Your task to perform on an android device: delete browsing data in the chrome app Image 0: 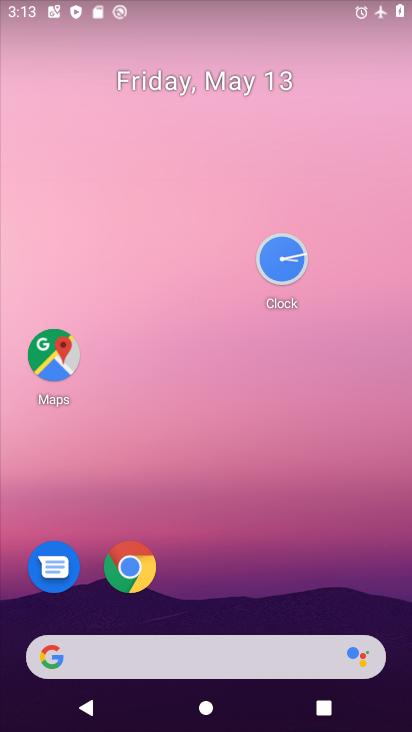
Step 0: drag from (238, 610) to (254, 207)
Your task to perform on an android device: delete browsing data in the chrome app Image 1: 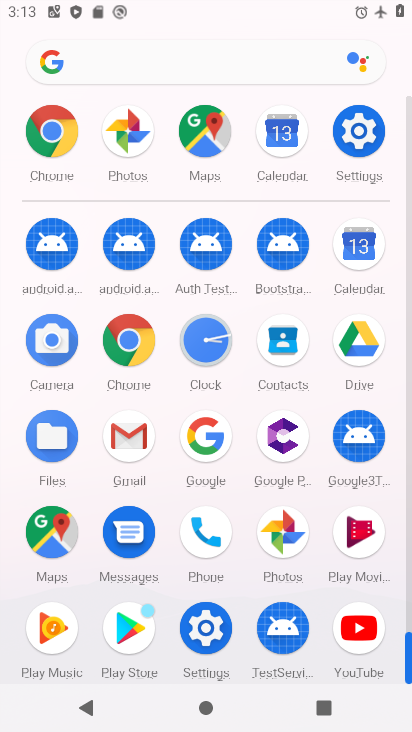
Step 1: click (61, 134)
Your task to perform on an android device: delete browsing data in the chrome app Image 2: 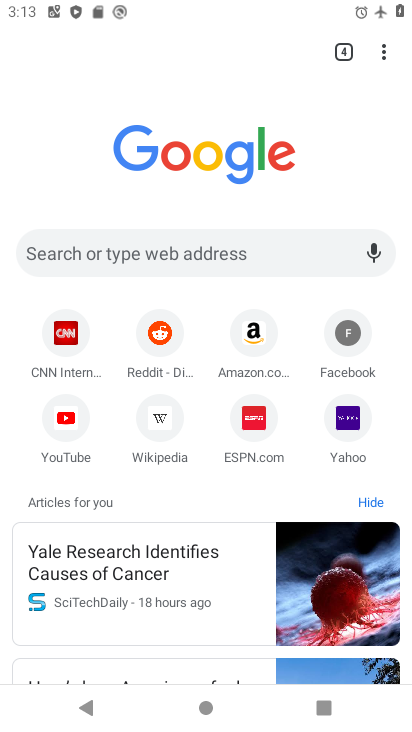
Step 2: click (378, 52)
Your task to perform on an android device: delete browsing data in the chrome app Image 3: 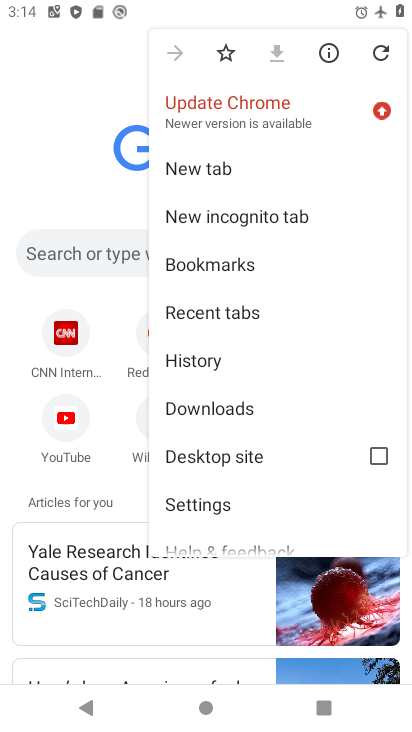
Step 3: click (220, 352)
Your task to perform on an android device: delete browsing data in the chrome app Image 4: 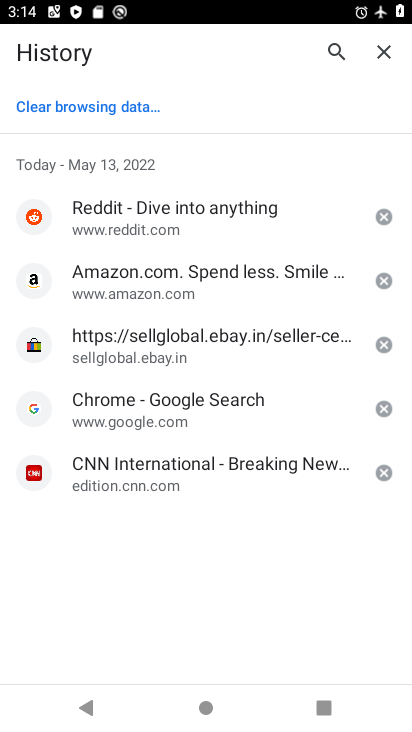
Step 4: click (109, 122)
Your task to perform on an android device: delete browsing data in the chrome app Image 5: 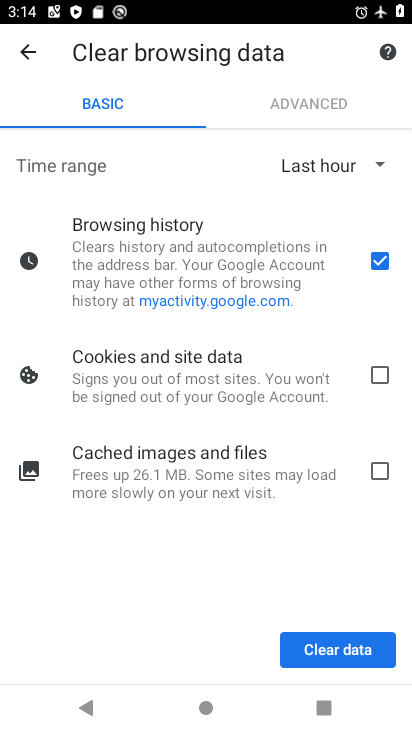
Step 5: click (340, 657)
Your task to perform on an android device: delete browsing data in the chrome app Image 6: 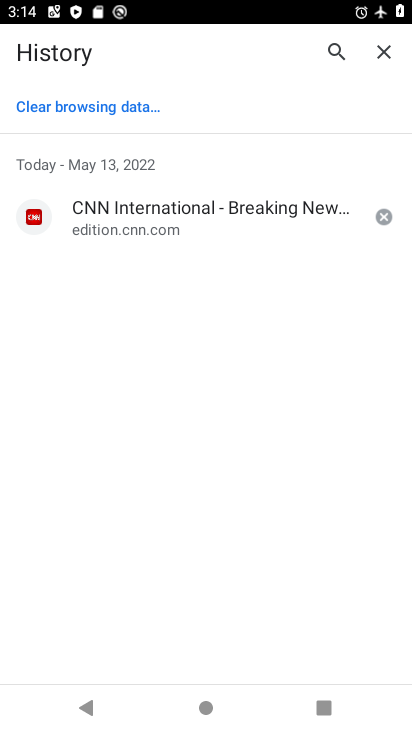
Step 6: click (73, 100)
Your task to perform on an android device: delete browsing data in the chrome app Image 7: 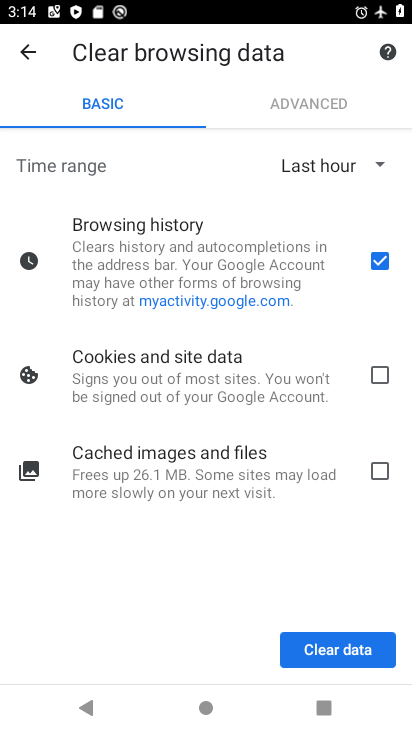
Step 7: click (350, 656)
Your task to perform on an android device: delete browsing data in the chrome app Image 8: 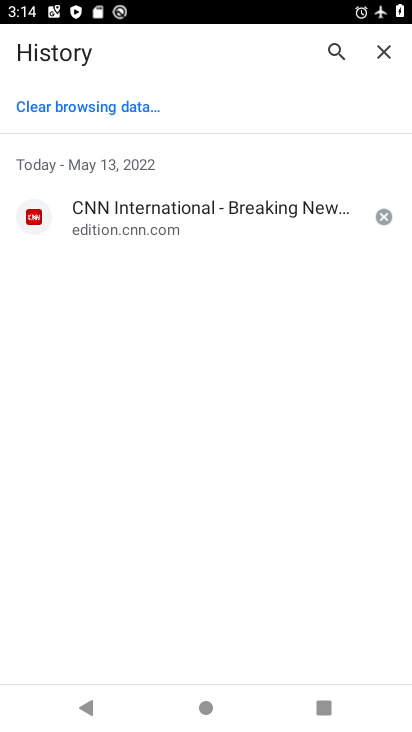
Step 8: task complete